Your task to perform on an android device: When is my next meeting? Image 0: 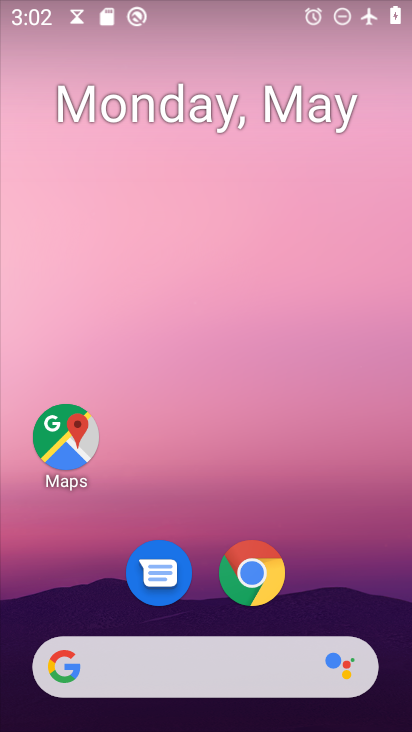
Step 0: drag from (362, 630) to (411, 99)
Your task to perform on an android device: When is my next meeting? Image 1: 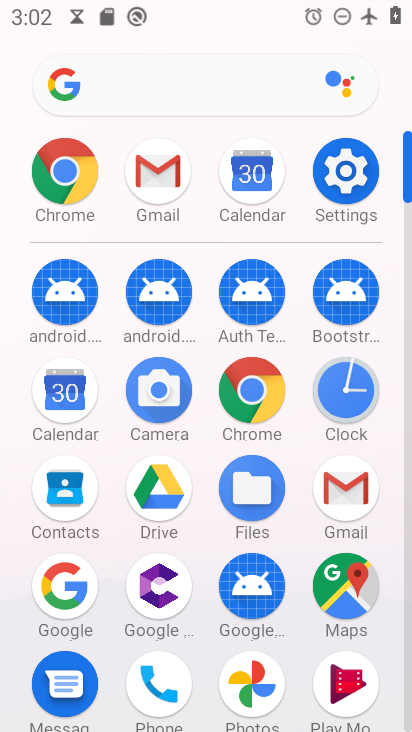
Step 1: click (93, 396)
Your task to perform on an android device: When is my next meeting? Image 2: 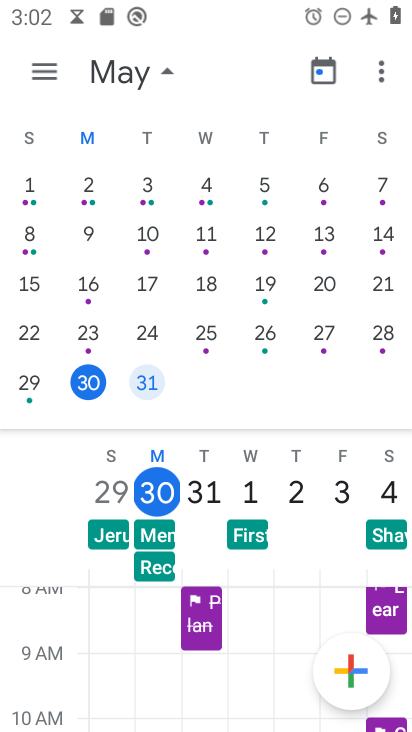
Step 2: click (145, 384)
Your task to perform on an android device: When is my next meeting? Image 3: 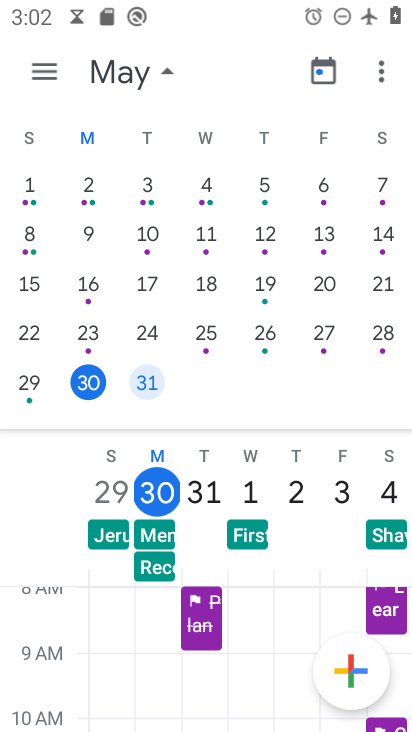
Step 3: task complete